Your task to perform on an android device: clear history in the chrome app Image 0: 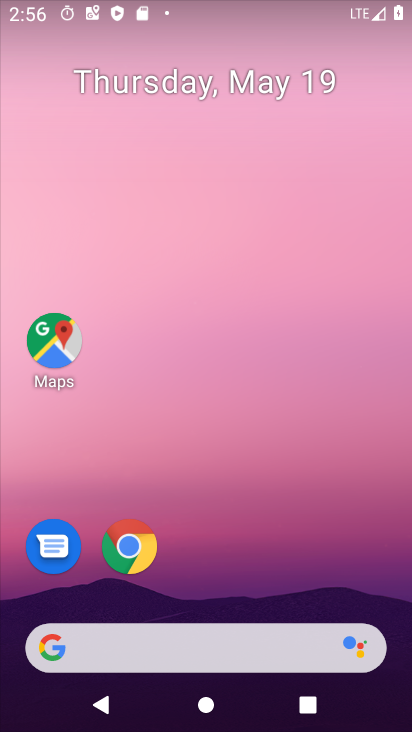
Step 0: click (132, 547)
Your task to perform on an android device: clear history in the chrome app Image 1: 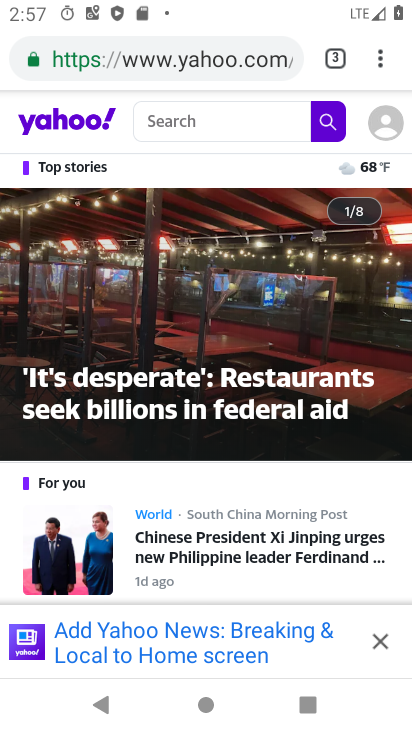
Step 1: click (374, 59)
Your task to perform on an android device: clear history in the chrome app Image 2: 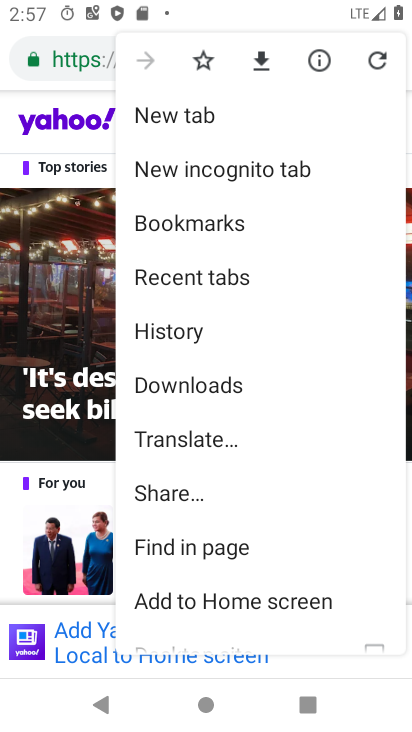
Step 2: click (189, 317)
Your task to perform on an android device: clear history in the chrome app Image 3: 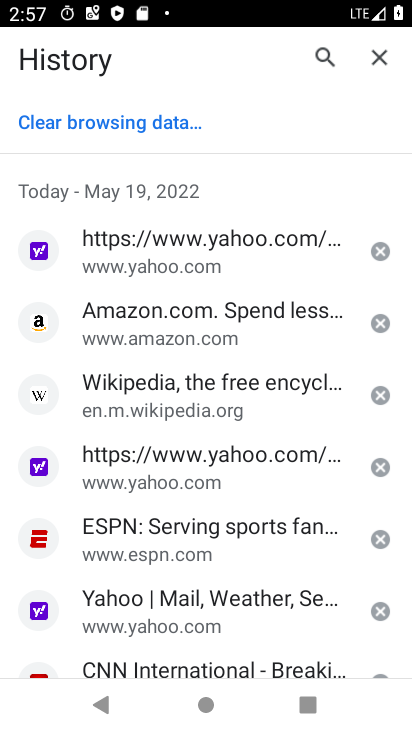
Step 3: click (154, 111)
Your task to perform on an android device: clear history in the chrome app Image 4: 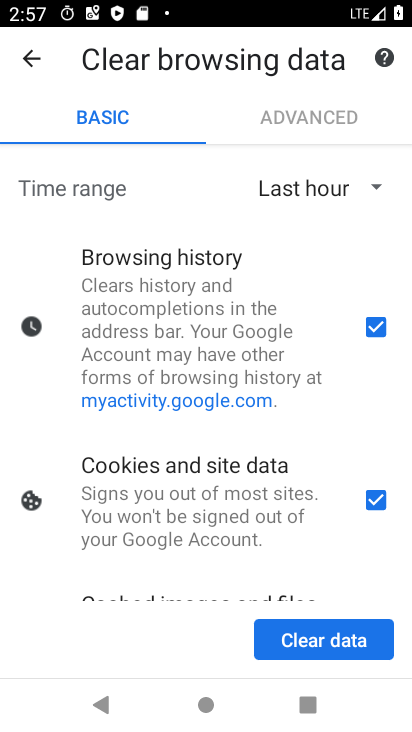
Step 4: click (365, 497)
Your task to perform on an android device: clear history in the chrome app Image 5: 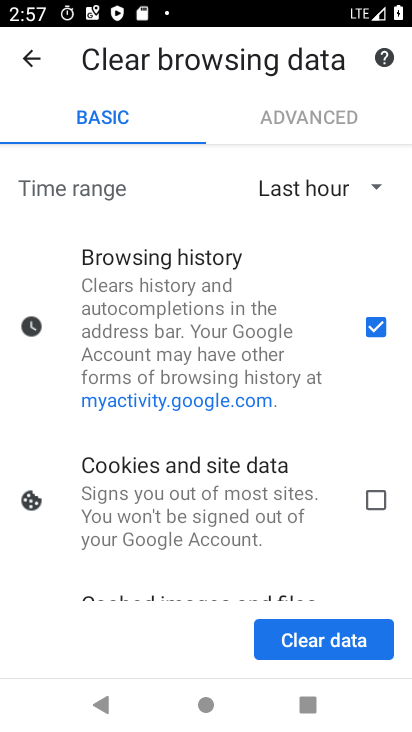
Step 5: click (279, 649)
Your task to perform on an android device: clear history in the chrome app Image 6: 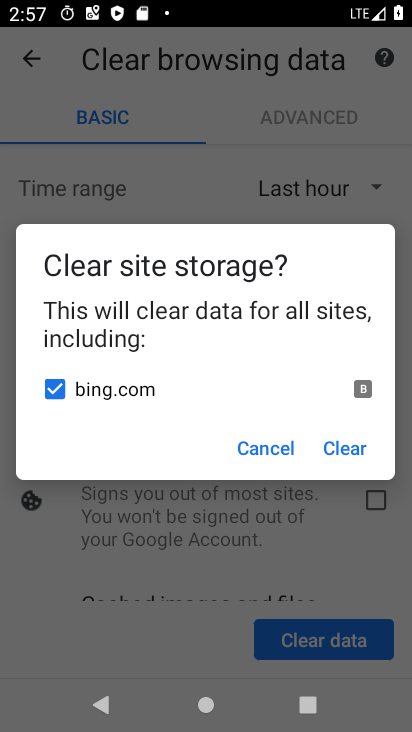
Step 6: click (338, 446)
Your task to perform on an android device: clear history in the chrome app Image 7: 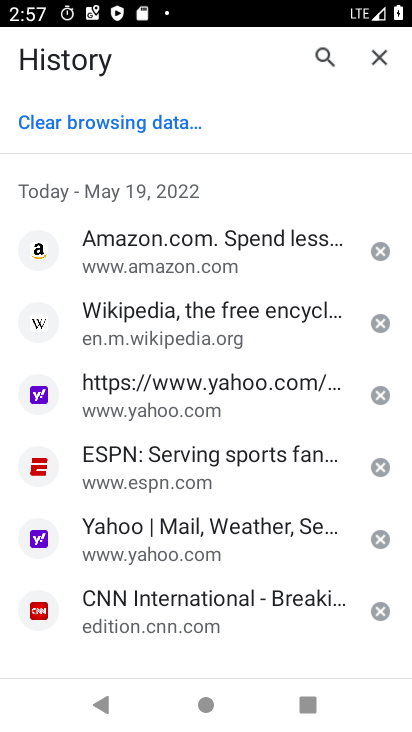
Step 7: task complete